Your task to perform on an android device: Search for jbl flip 4 on amazon, select the first entry, and add it to the cart. Image 0: 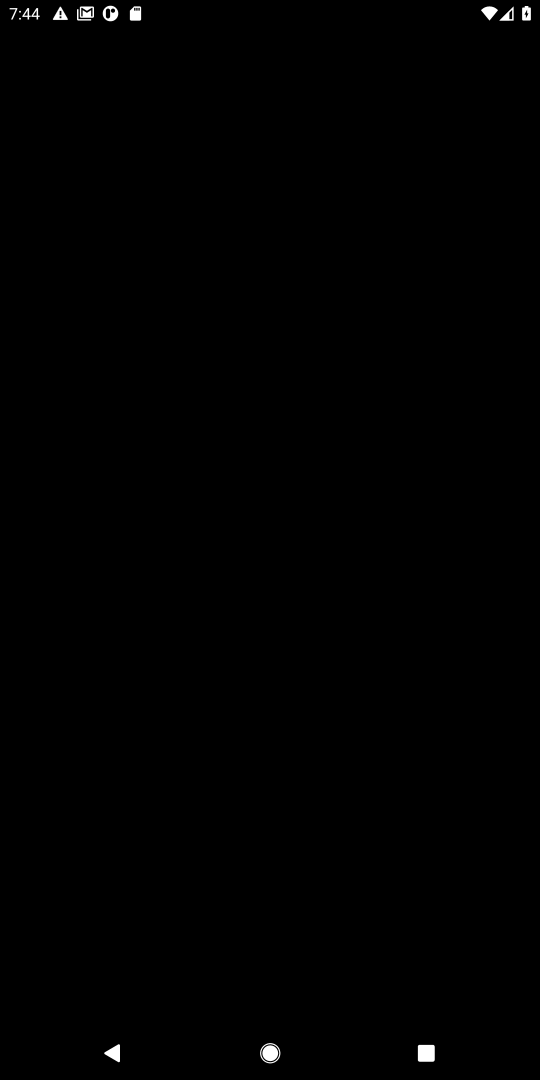
Step 0: press home button
Your task to perform on an android device: Search for jbl flip 4 on amazon, select the first entry, and add it to the cart. Image 1: 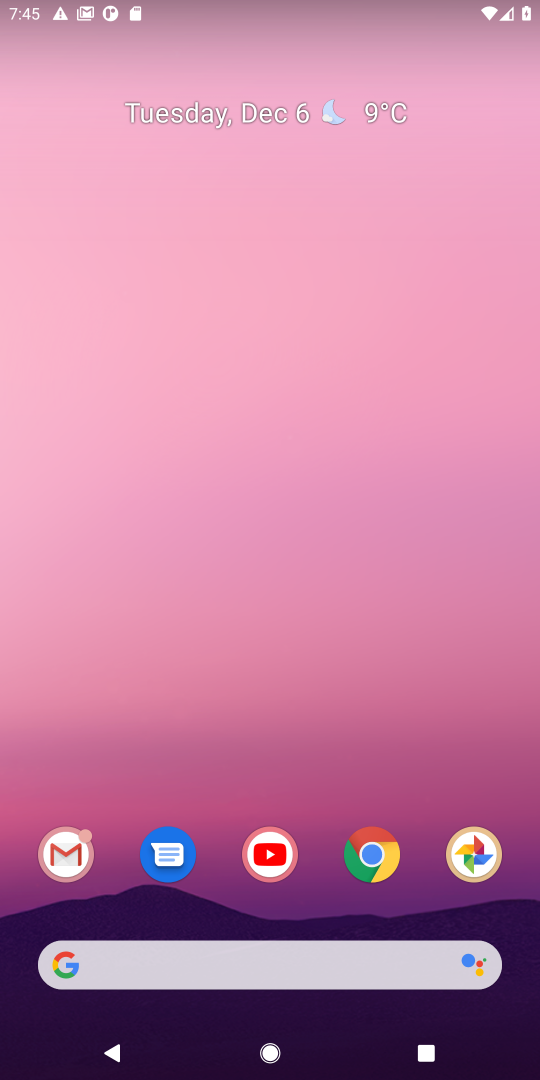
Step 1: click (385, 852)
Your task to perform on an android device: Search for jbl flip 4 on amazon, select the first entry, and add it to the cart. Image 2: 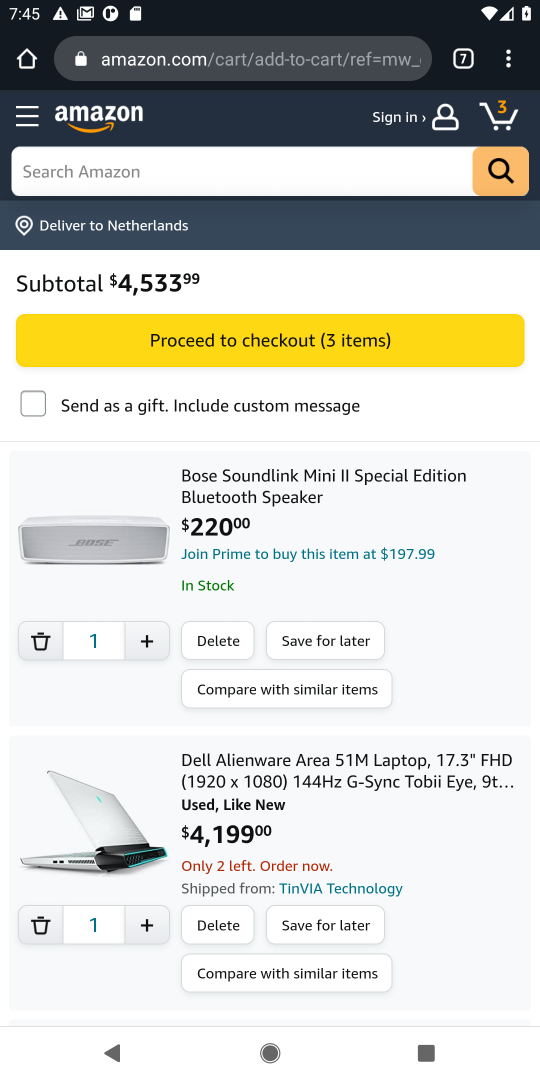
Step 2: click (182, 158)
Your task to perform on an android device: Search for jbl flip 4 on amazon, select the first entry, and add it to the cart. Image 3: 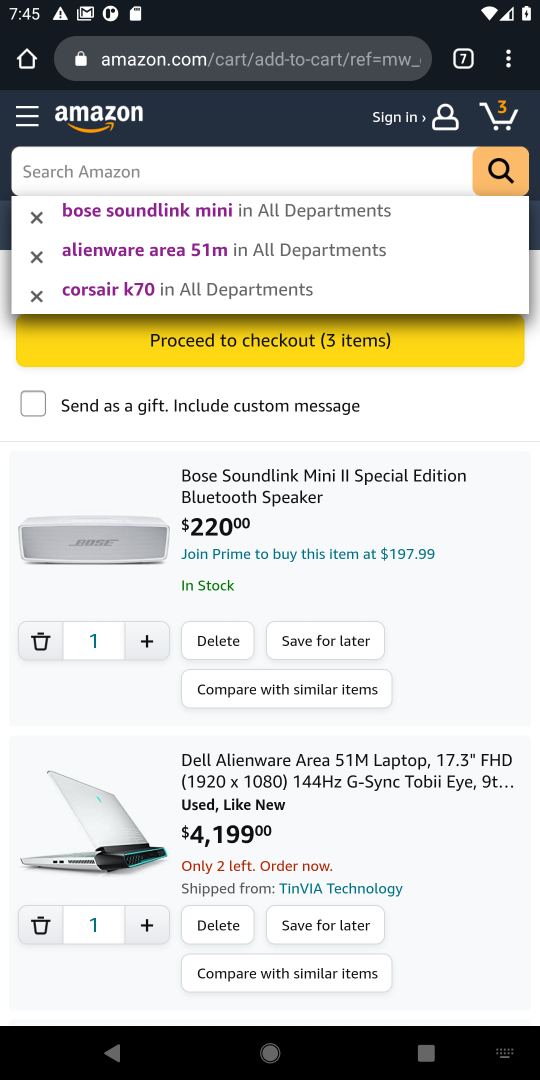
Step 3: type "jbl flip 4"
Your task to perform on an android device: Search for jbl flip 4 on amazon, select the first entry, and add it to the cart. Image 4: 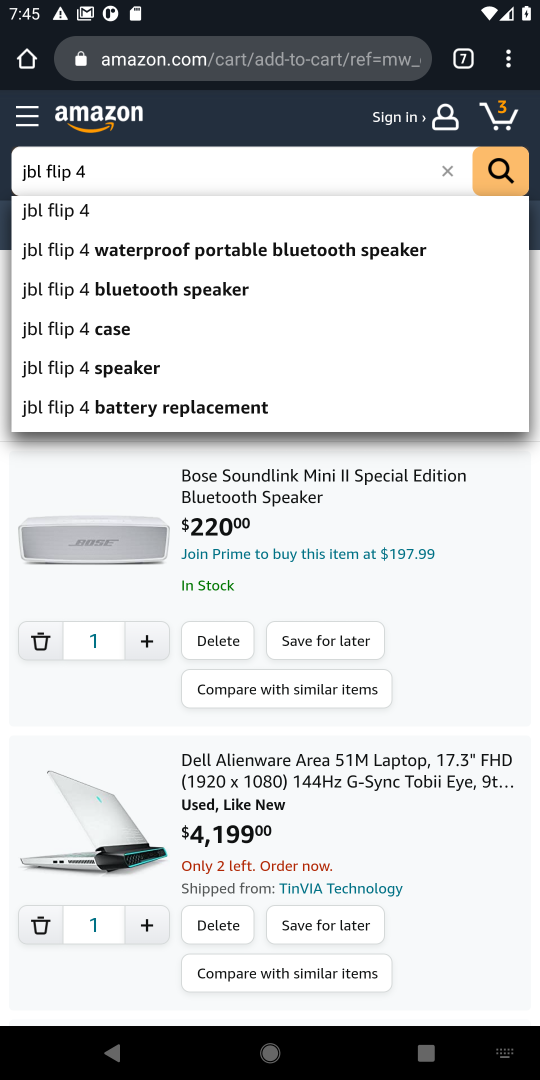
Step 4: click (72, 214)
Your task to perform on an android device: Search for jbl flip 4 on amazon, select the first entry, and add it to the cart. Image 5: 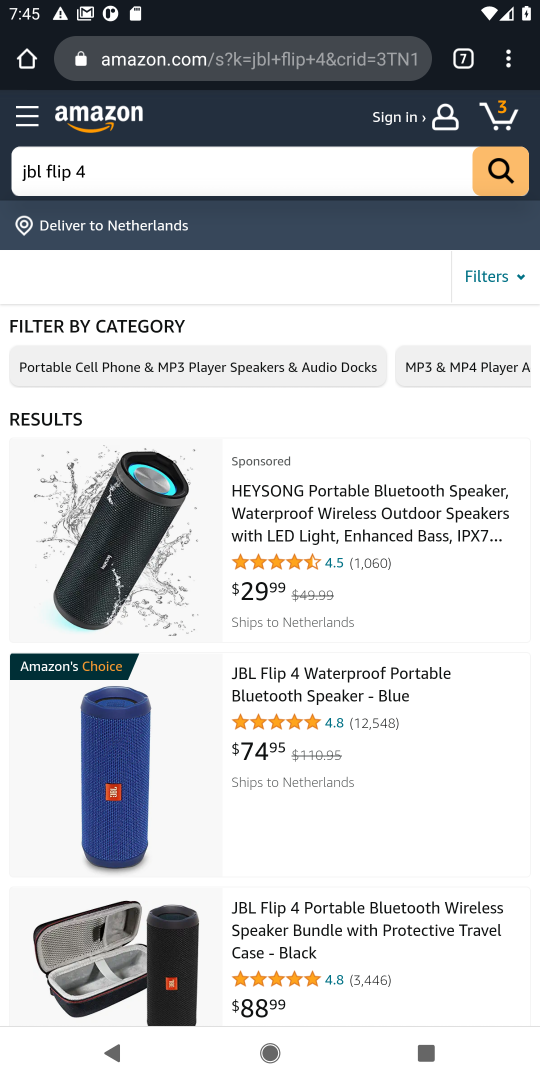
Step 5: click (348, 670)
Your task to perform on an android device: Search for jbl flip 4 on amazon, select the first entry, and add it to the cart. Image 6: 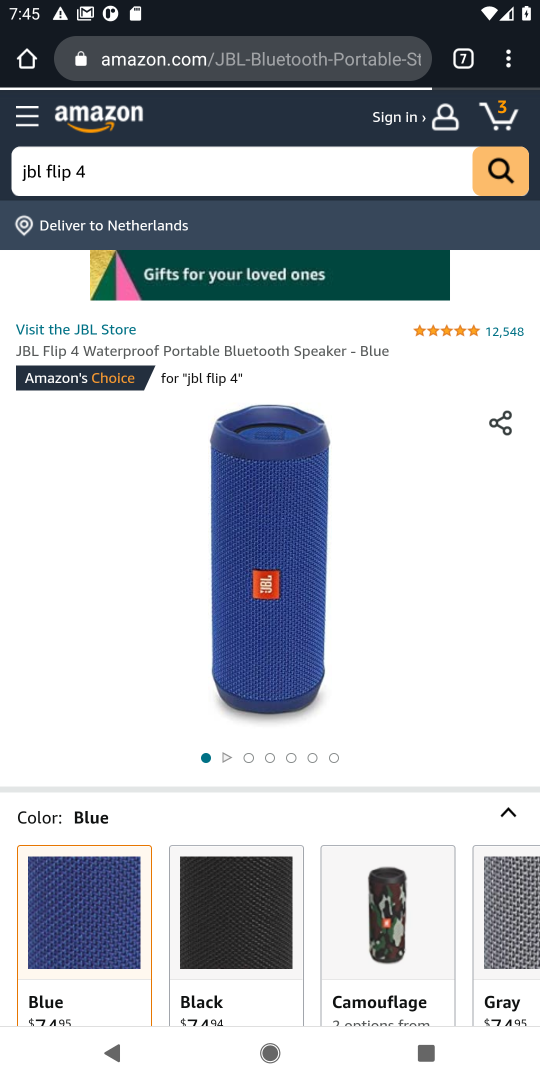
Step 6: drag from (275, 942) to (345, 528)
Your task to perform on an android device: Search for jbl flip 4 on amazon, select the first entry, and add it to the cart. Image 7: 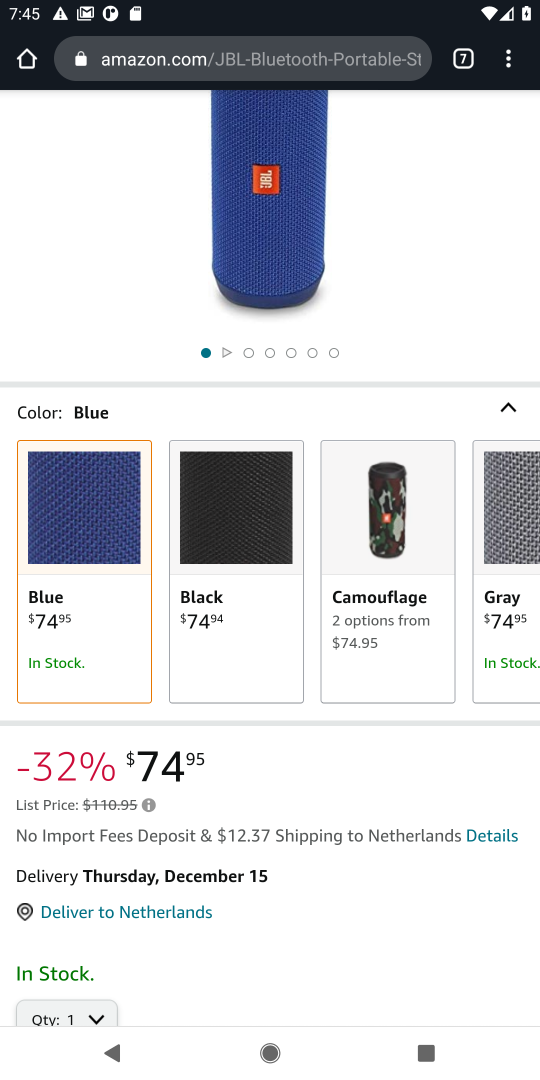
Step 7: drag from (376, 932) to (402, 422)
Your task to perform on an android device: Search for jbl flip 4 on amazon, select the first entry, and add it to the cart. Image 8: 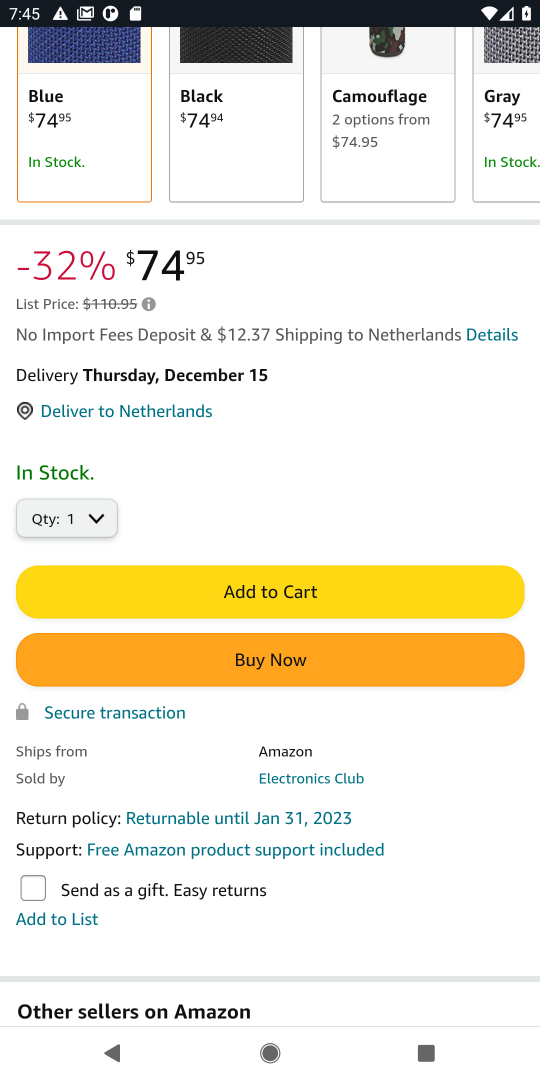
Step 8: click (330, 595)
Your task to perform on an android device: Search for jbl flip 4 on amazon, select the first entry, and add it to the cart. Image 9: 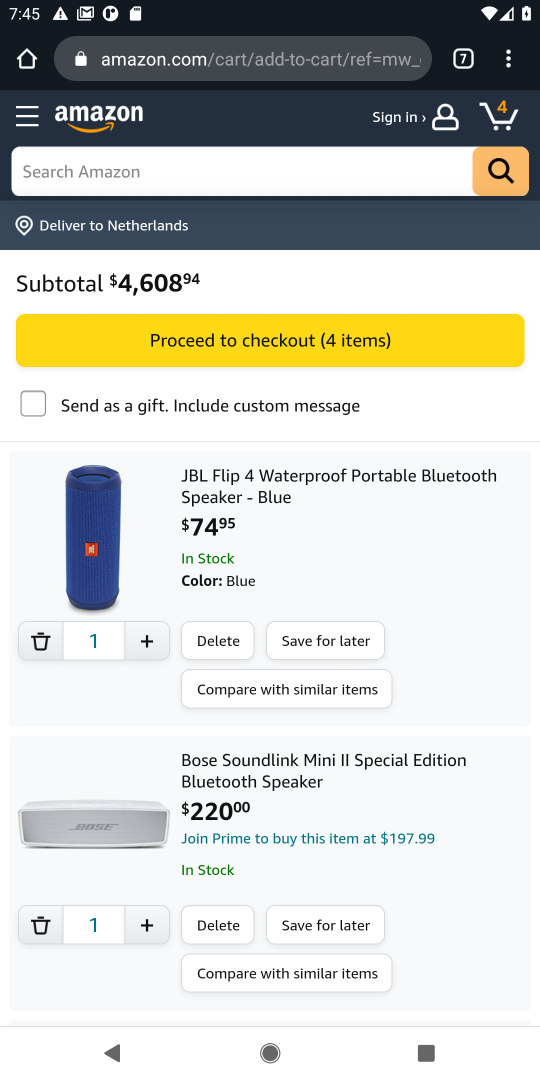
Step 9: task complete